Your task to perform on an android device: Do I have any events today? Image 0: 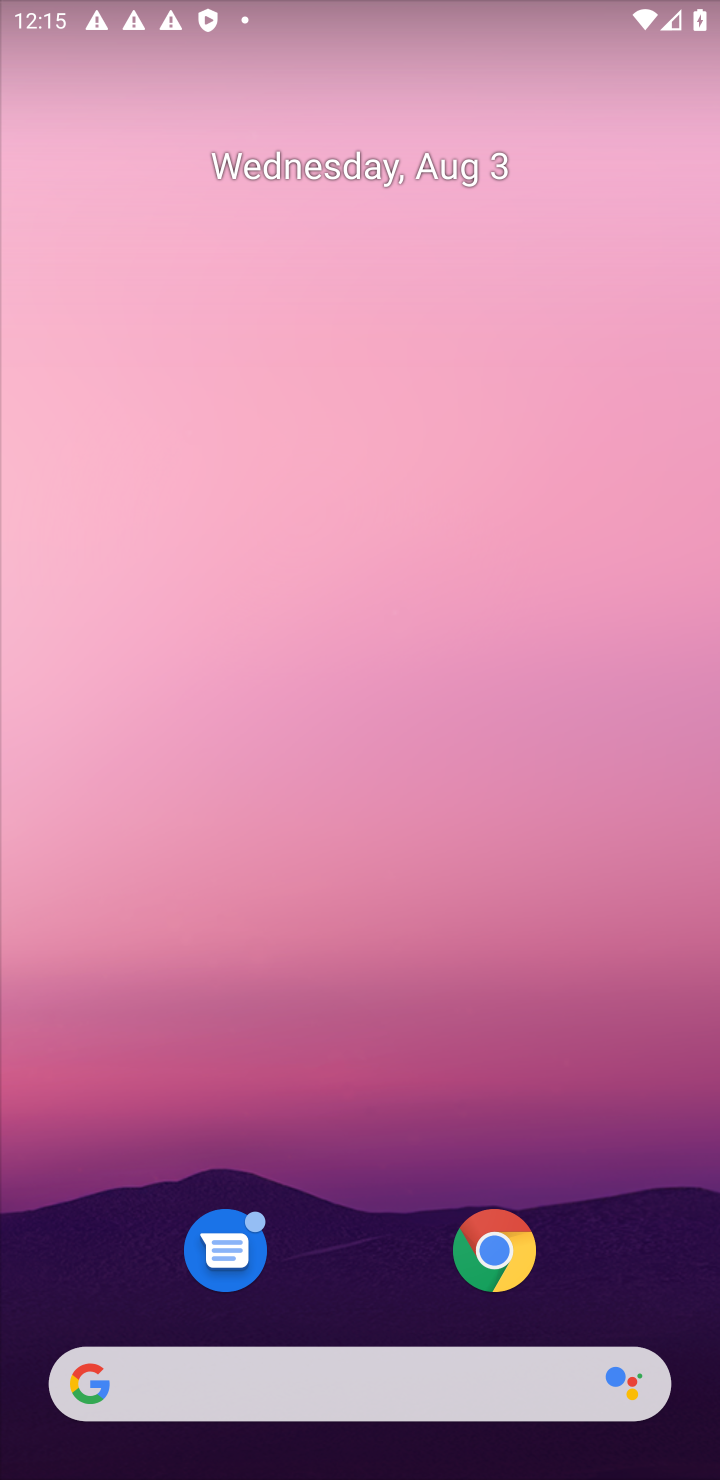
Step 0: drag from (382, 1268) to (464, 259)
Your task to perform on an android device: Do I have any events today? Image 1: 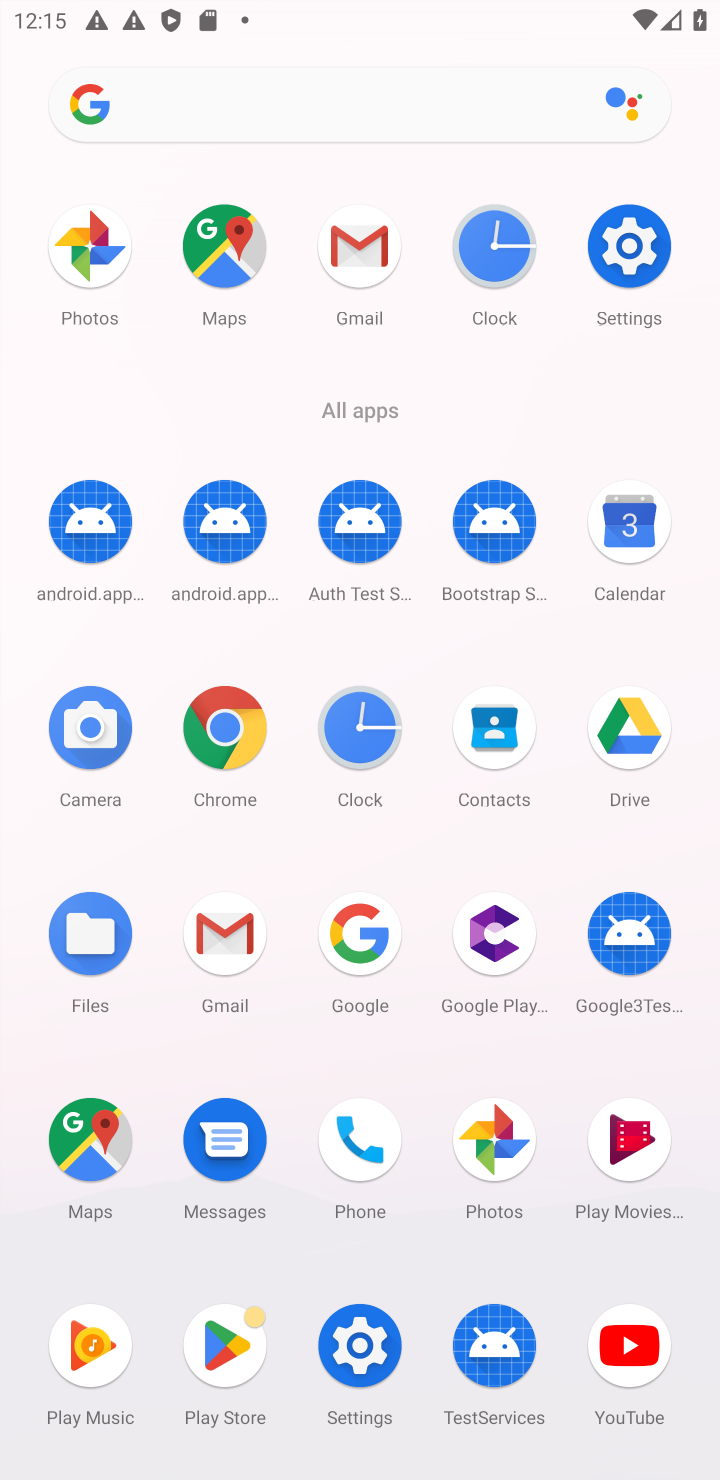
Step 1: click (635, 551)
Your task to perform on an android device: Do I have any events today? Image 2: 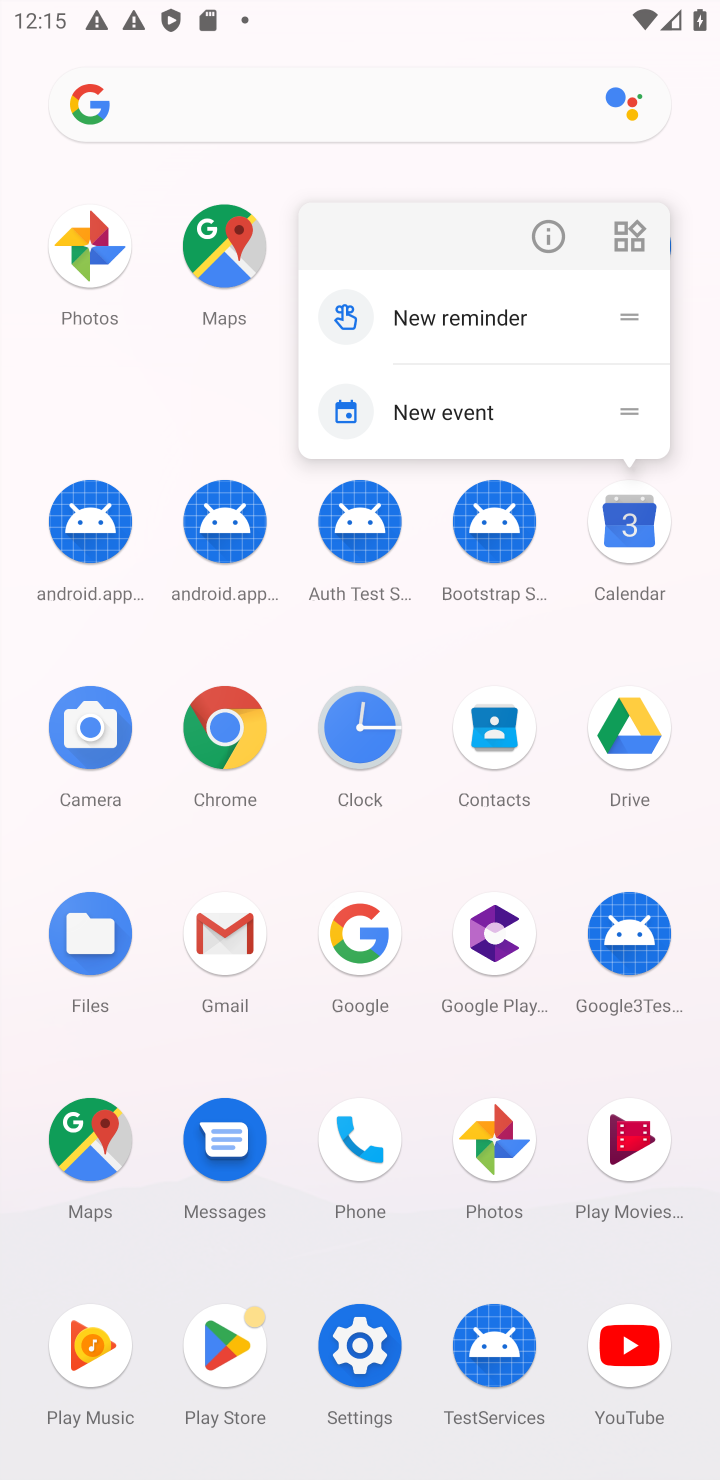
Step 2: click (616, 519)
Your task to perform on an android device: Do I have any events today? Image 3: 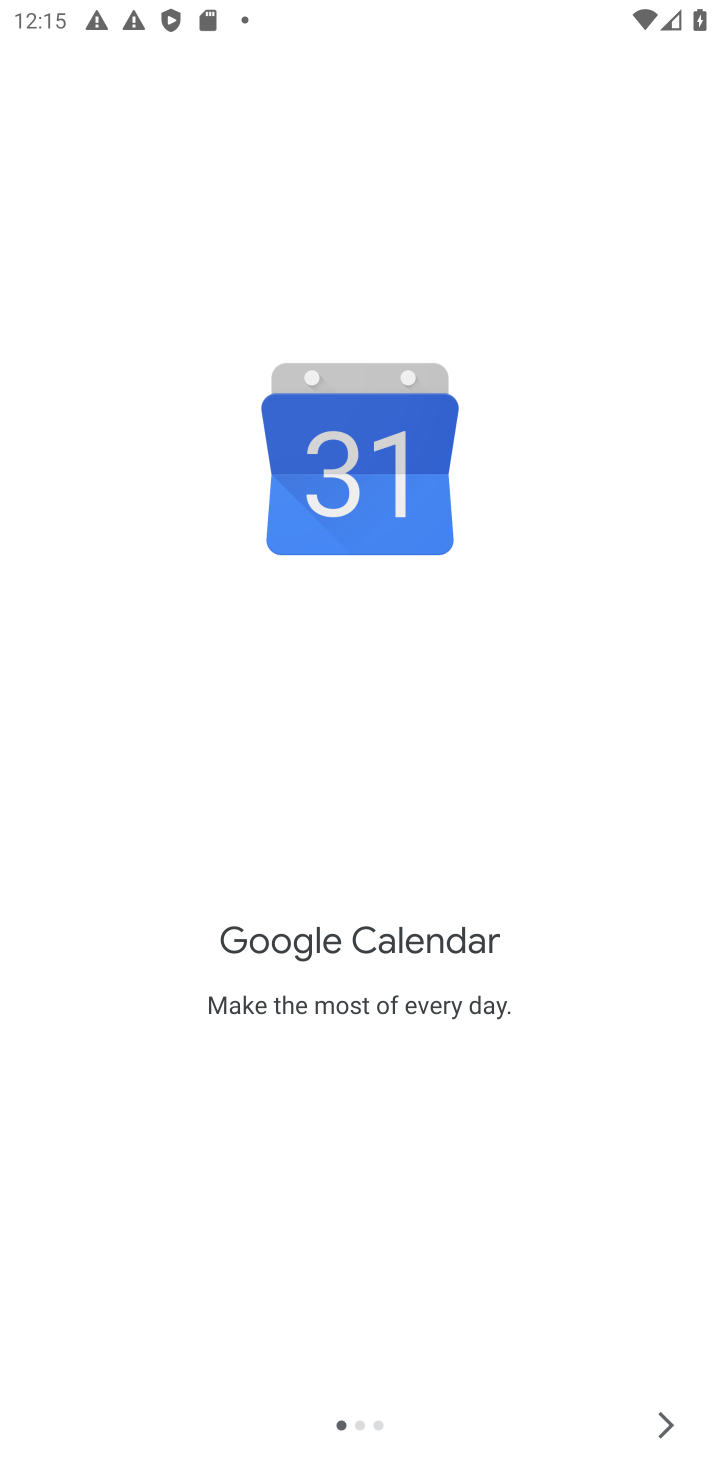
Step 3: click (665, 1448)
Your task to perform on an android device: Do I have any events today? Image 4: 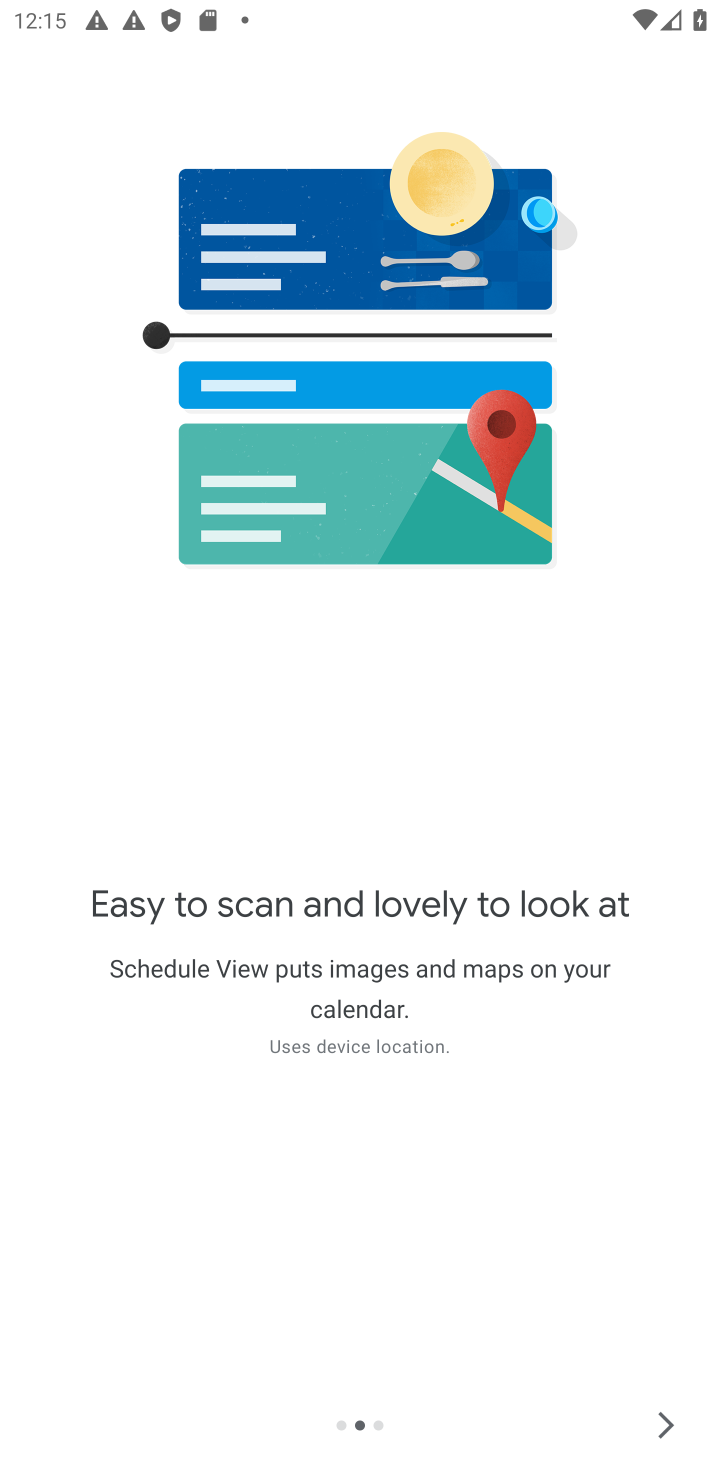
Step 4: click (665, 1448)
Your task to perform on an android device: Do I have any events today? Image 5: 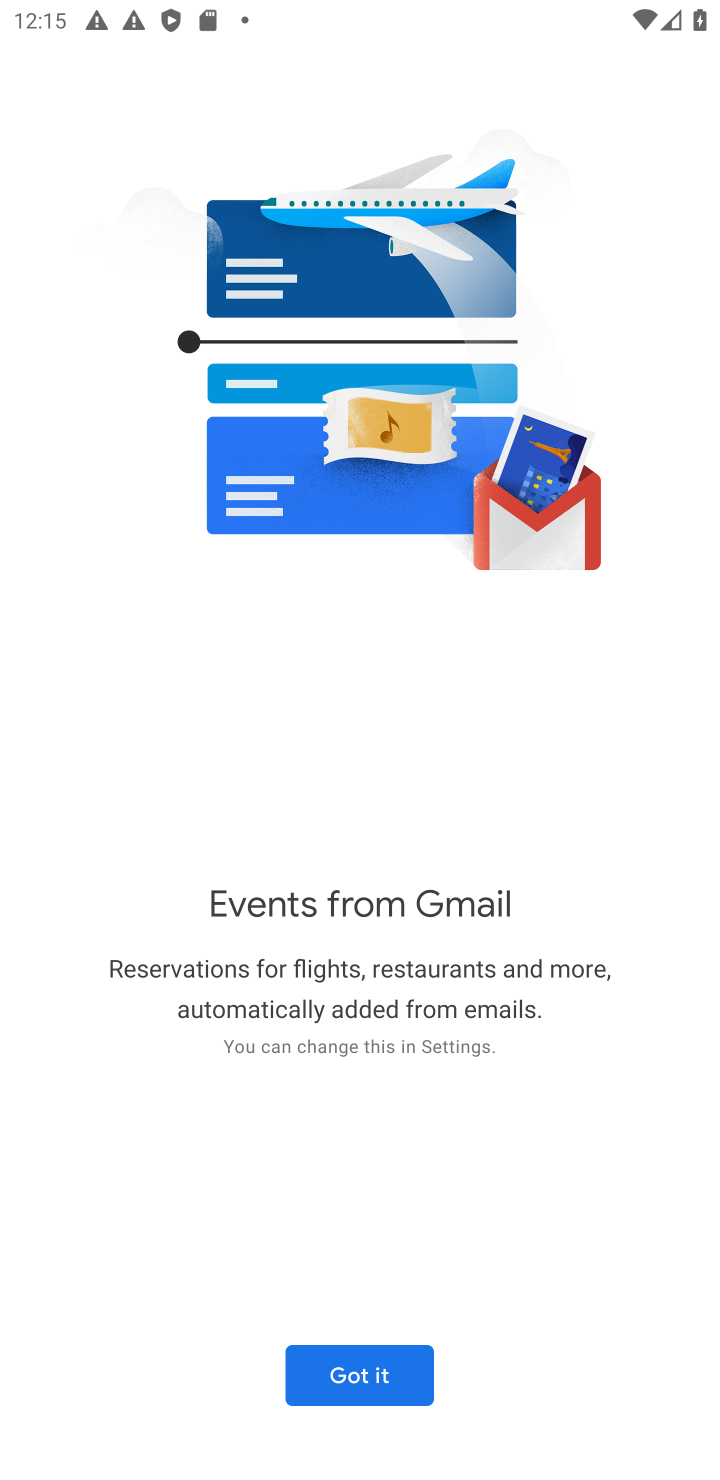
Step 5: click (332, 1376)
Your task to perform on an android device: Do I have any events today? Image 6: 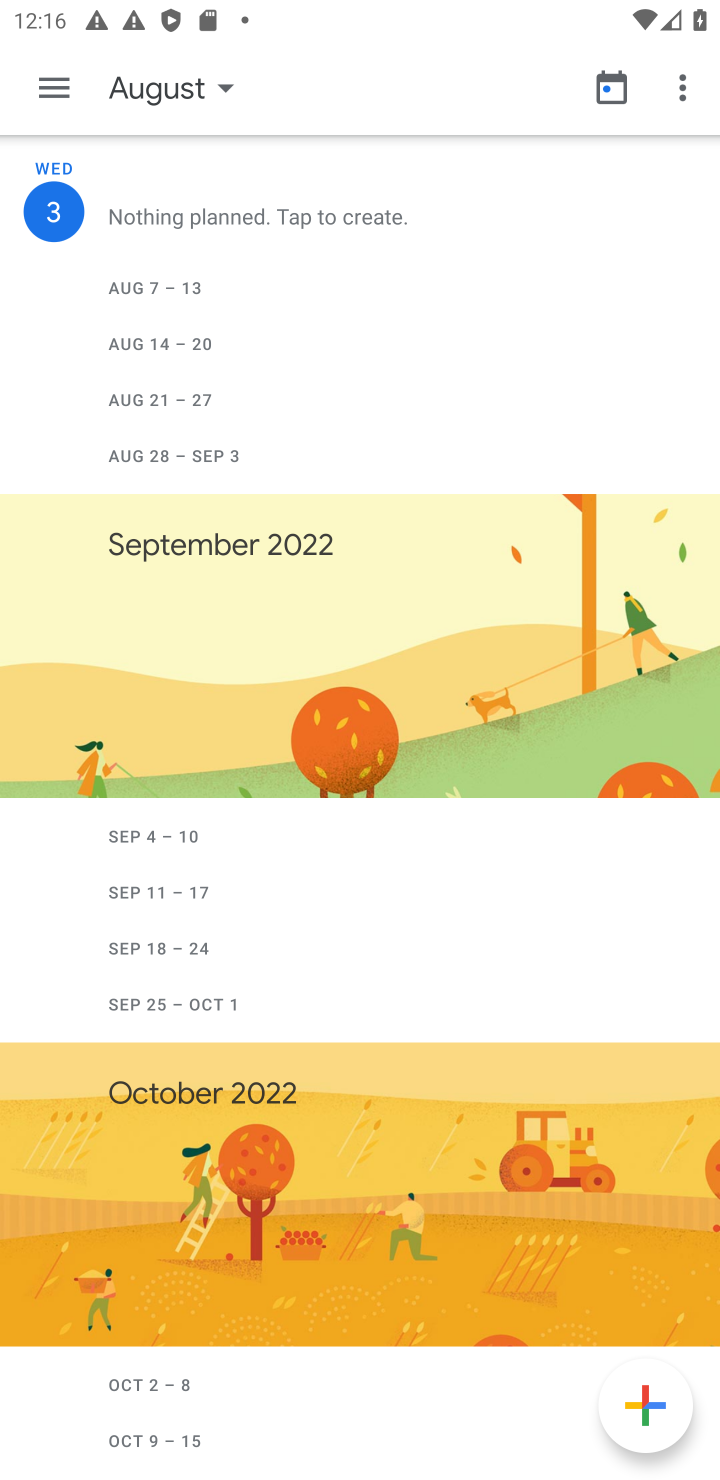
Step 6: click (150, 83)
Your task to perform on an android device: Do I have any events today? Image 7: 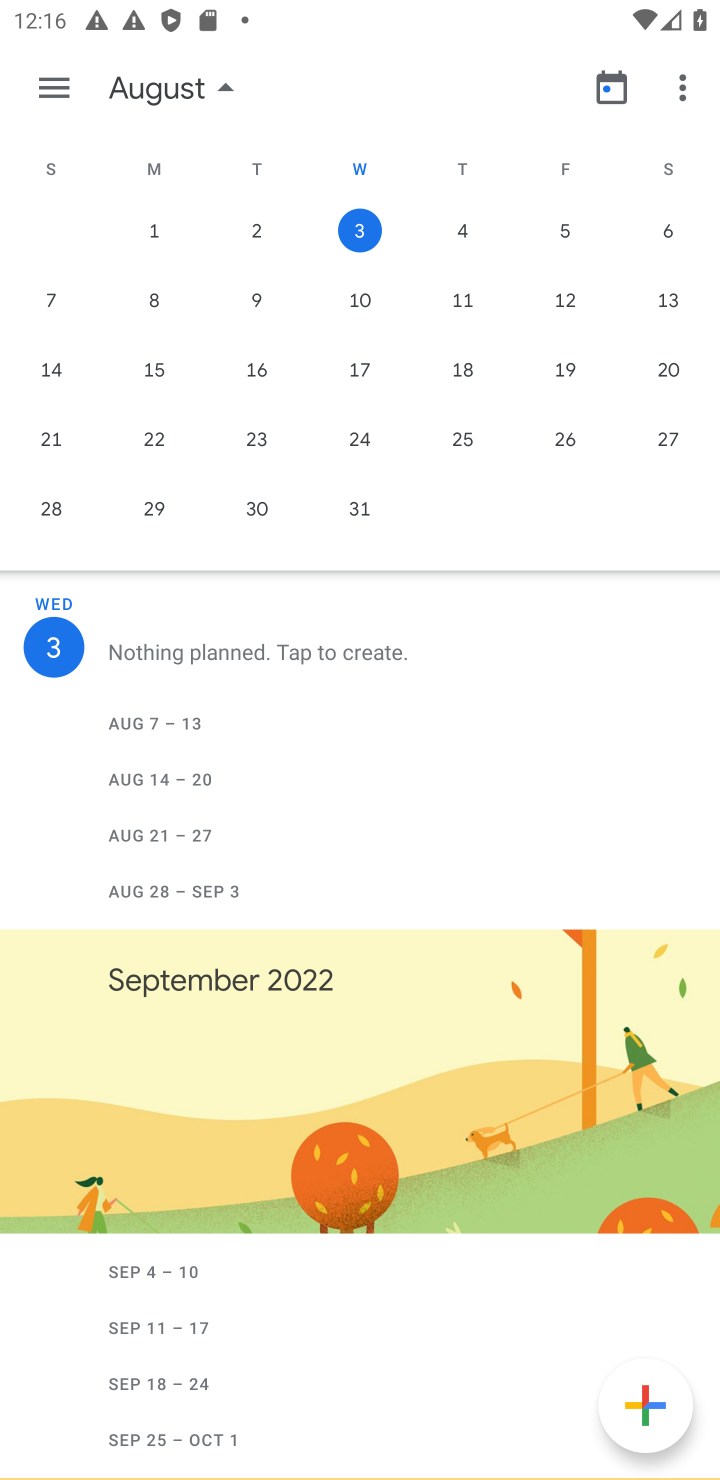
Step 7: click (374, 216)
Your task to perform on an android device: Do I have any events today? Image 8: 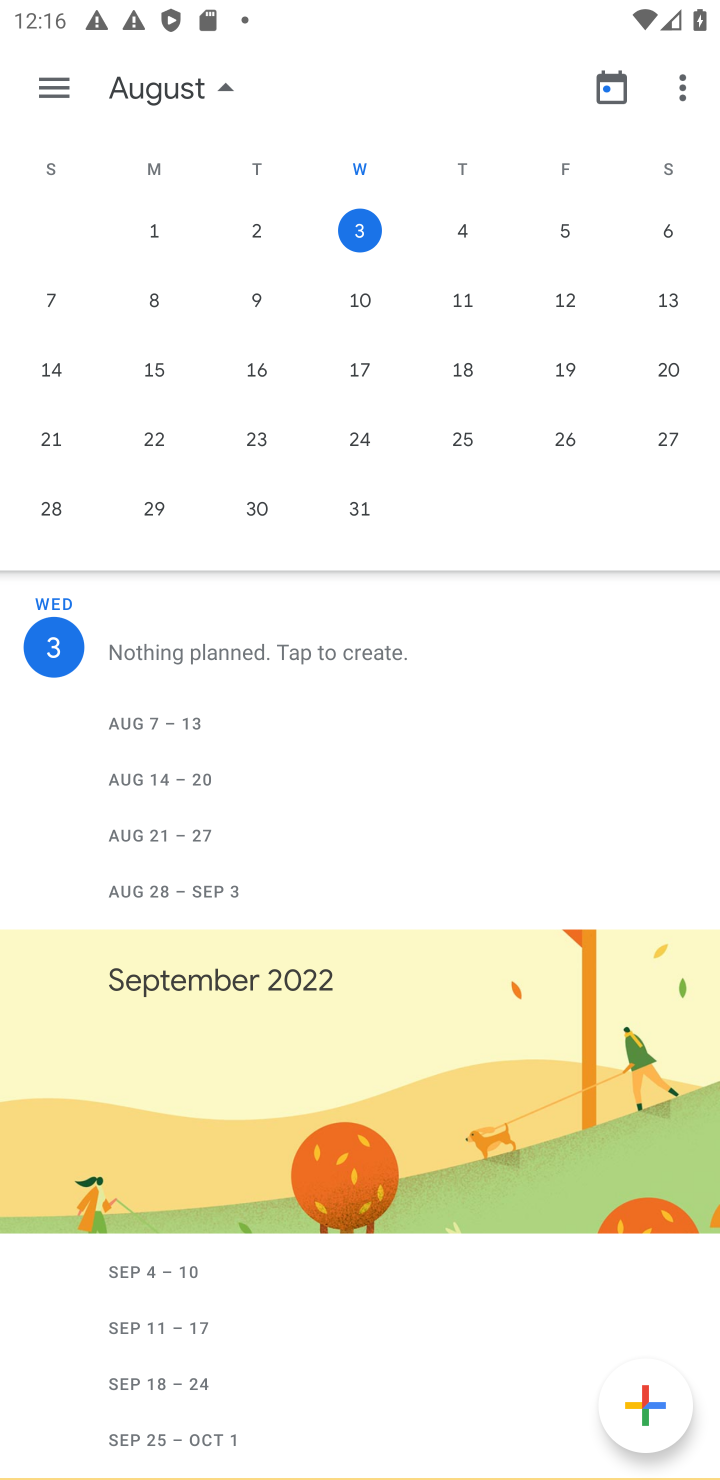
Step 8: task complete